Your task to perform on an android device: toggle notifications settings in the gmail app Image 0: 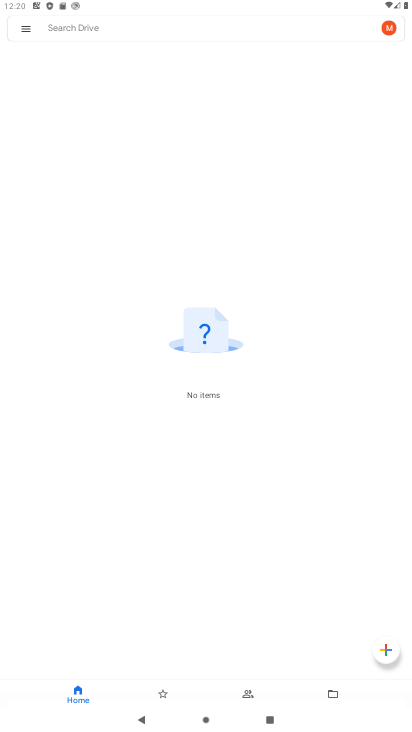
Step 0: press home button
Your task to perform on an android device: toggle notifications settings in the gmail app Image 1: 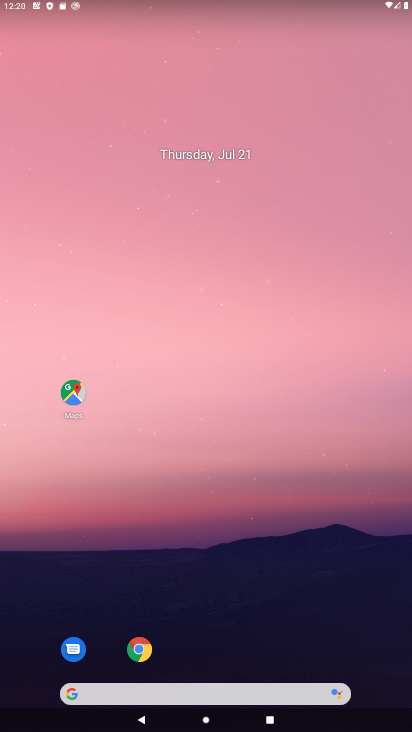
Step 1: drag from (384, 680) to (307, 152)
Your task to perform on an android device: toggle notifications settings in the gmail app Image 2: 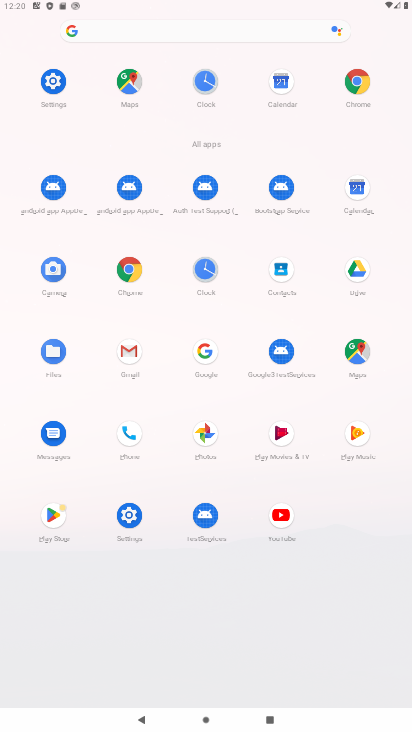
Step 2: click (126, 352)
Your task to perform on an android device: toggle notifications settings in the gmail app Image 3: 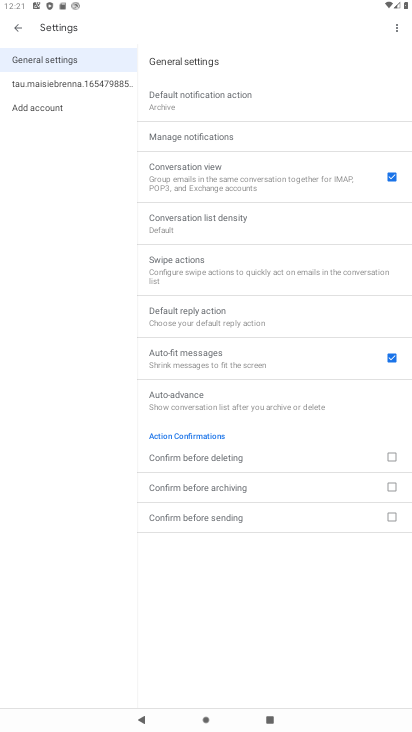
Step 3: click (63, 86)
Your task to perform on an android device: toggle notifications settings in the gmail app Image 4: 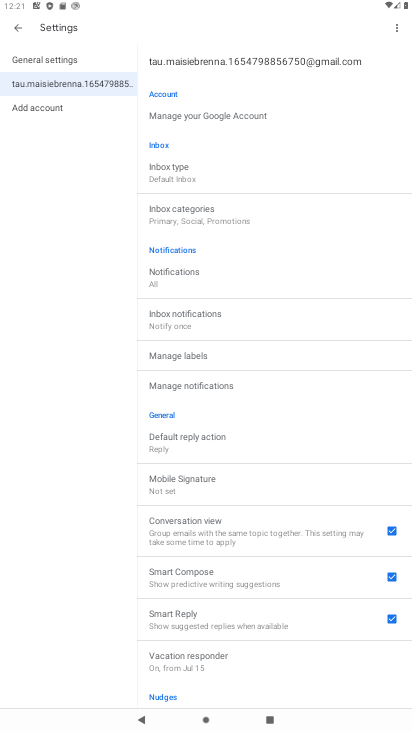
Step 4: click (189, 386)
Your task to perform on an android device: toggle notifications settings in the gmail app Image 5: 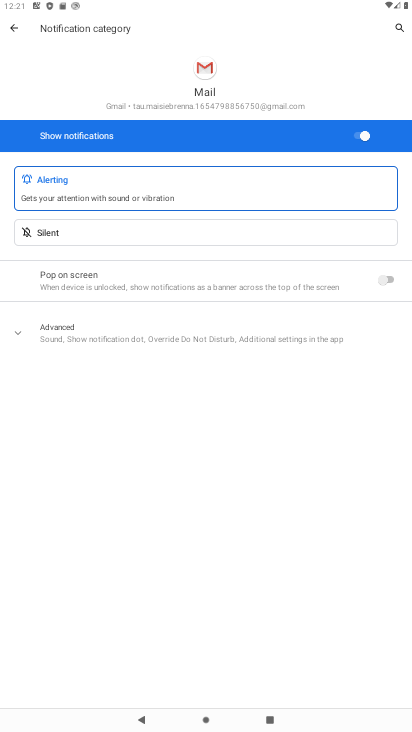
Step 5: click (356, 138)
Your task to perform on an android device: toggle notifications settings in the gmail app Image 6: 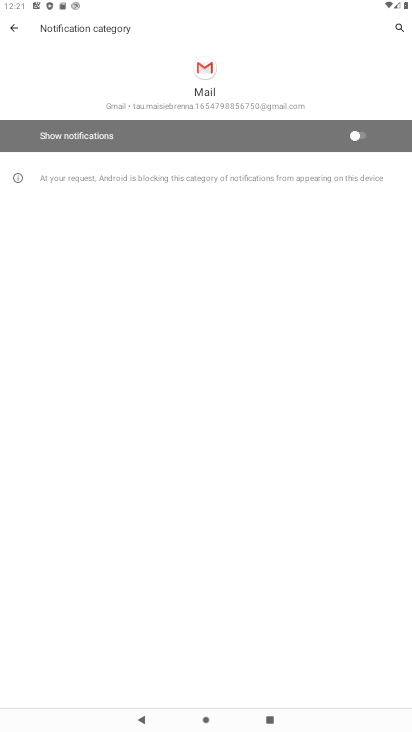
Step 6: task complete